Your task to perform on an android device: turn on priority inbox in the gmail app Image 0: 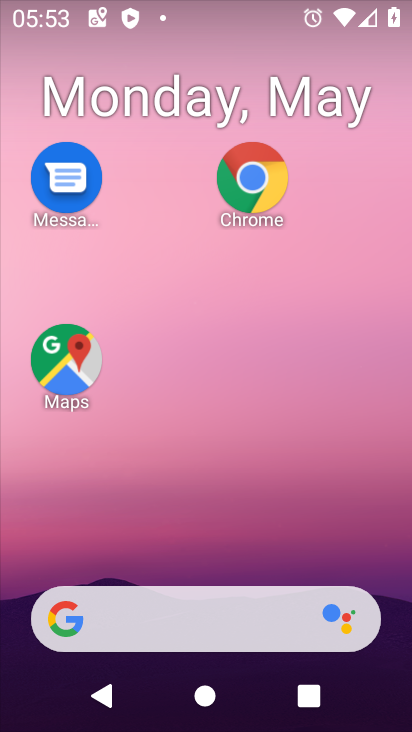
Step 0: drag from (186, 548) to (19, 459)
Your task to perform on an android device: turn on priority inbox in the gmail app Image 1: 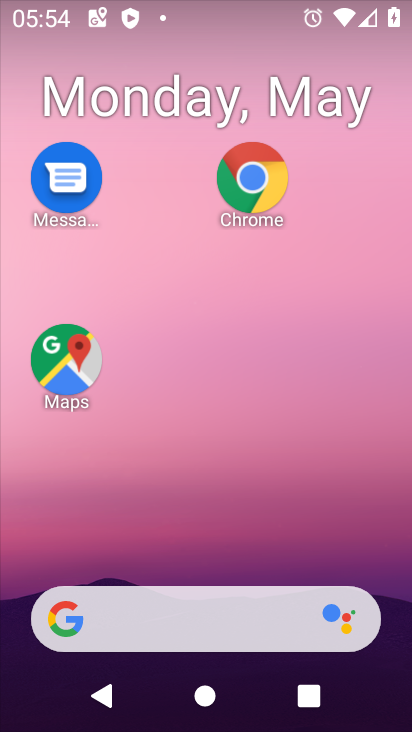
Step 1: drag from (213, 553) to (244, 0)
Your task to perform on an android device: turn on priority inbox in the gmail app Image 2: 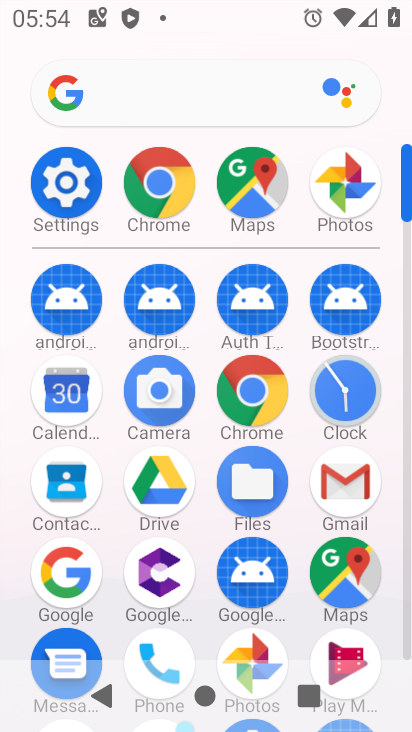
Step 2: click (346, 491)
Your task to perform on an android device: turn on priority inbox in the gmail app Image 3: 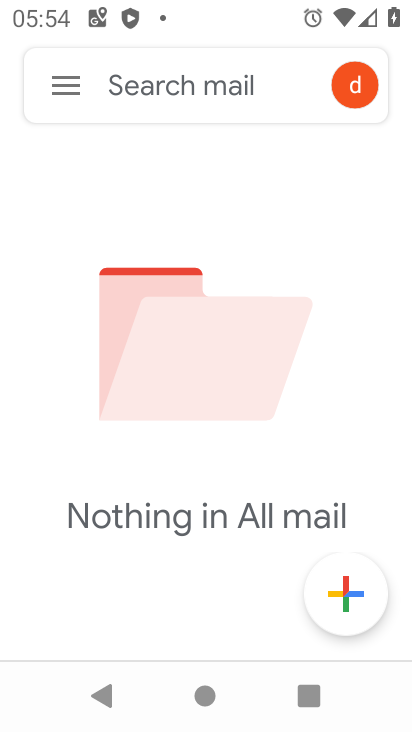
Step 3: click (57, 88)
Your task to perform on an android device: turn on priority inbox in the gmail app Image 4: 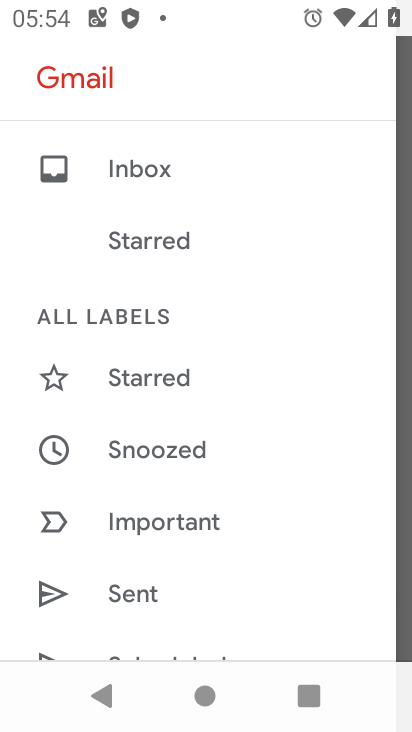
Step 4: drag from (153, 585) to (176, 247)
Your task to perform on an android device: turn on priority inbox in the gmail app Image 5: 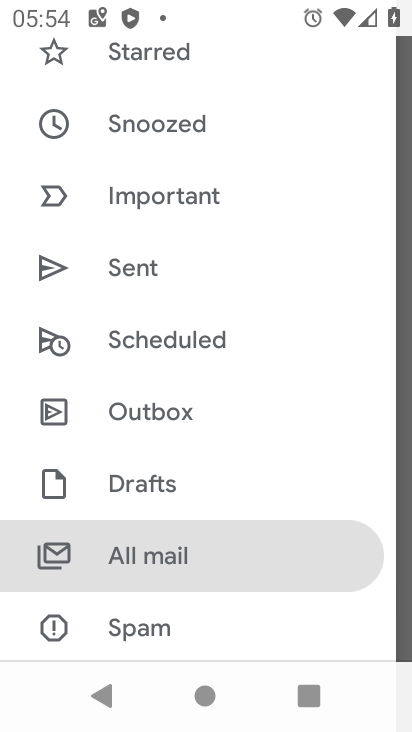
Step 5: drag from (201, 622) to (203, 445)
Your task to perform on an android device: turn on priority inbox in the gmail app Image 6: 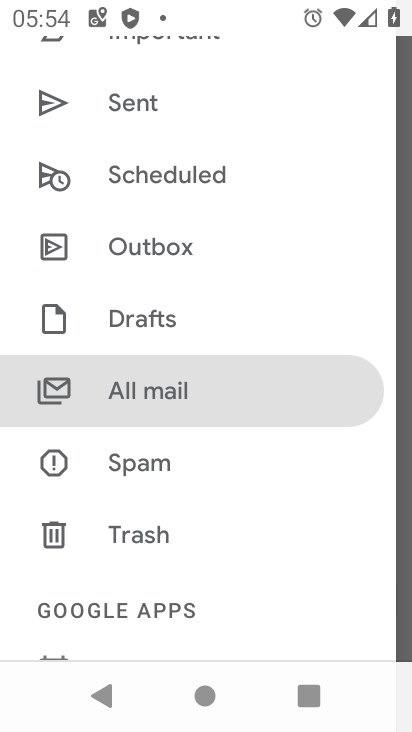
Step 6: drag from (196, 523) to (217, 311)
Your task to perform on an android device: turn on priority inbox in the gmail app Image 7: 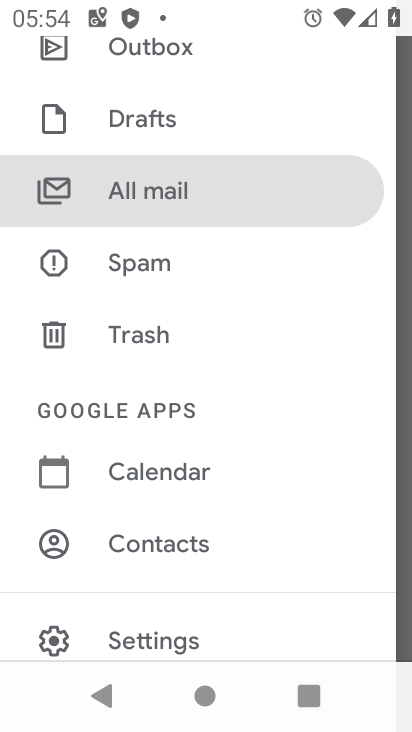
Step 7: click (157, 640)
Your task to perform on an android device: turn on priority inbox in the gmail app Image 8: 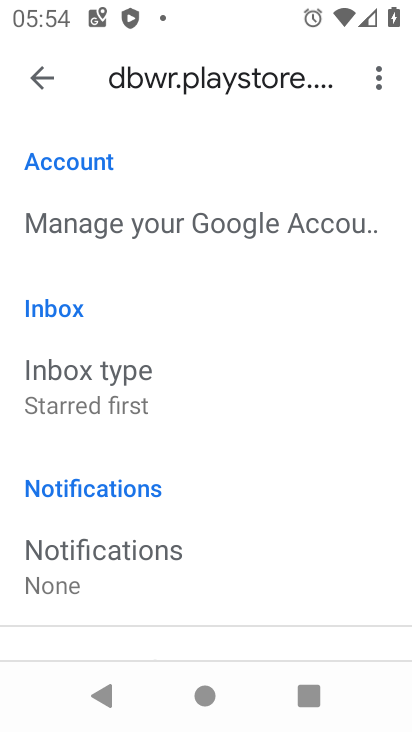
Step 8: click (123, 399)
Your task to perform on an android device: turn on priority inbox in the gmail app Image 9: 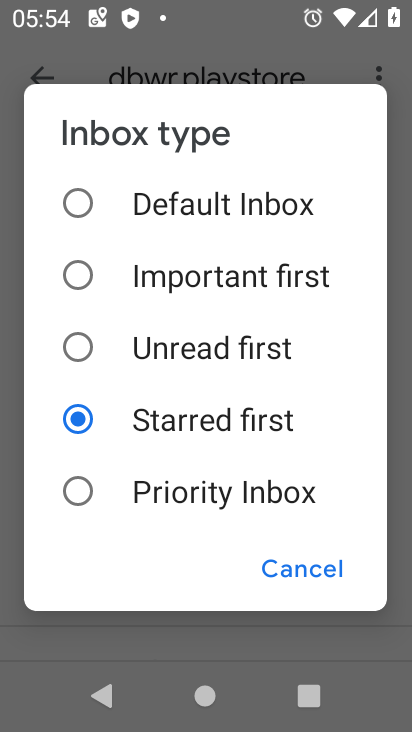
Step 9: click (83, 494)
Your task to perform on an android device: turn on priority inbox in the gmail app Image 10: 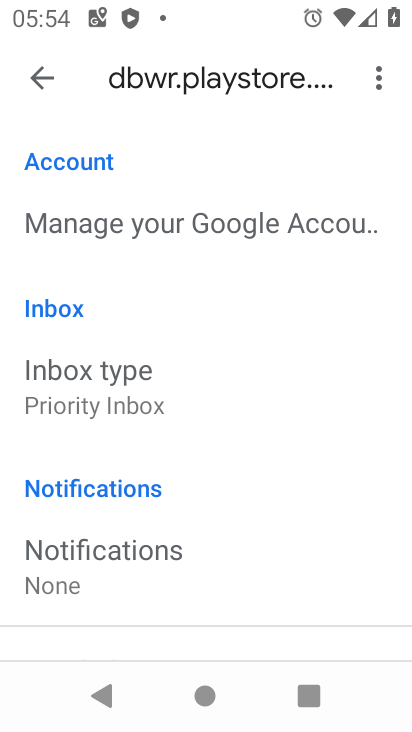
Step 10: task complete